Your task to perform on an android device: check storage Image 0: 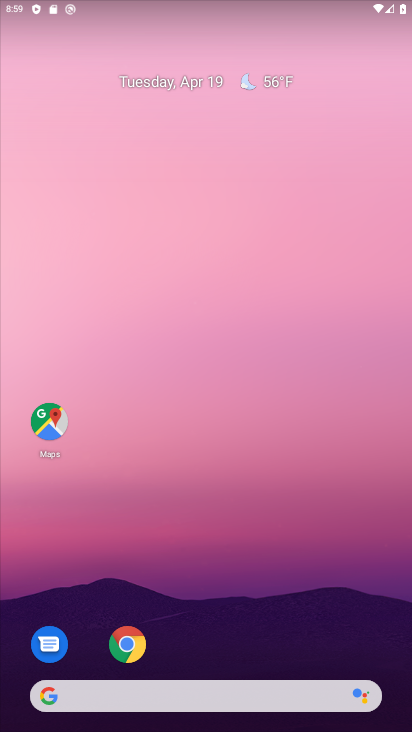
Step 0: drag from (182, 653) to (228, 161)
Your task to perform on an android device: check storage Image 1: 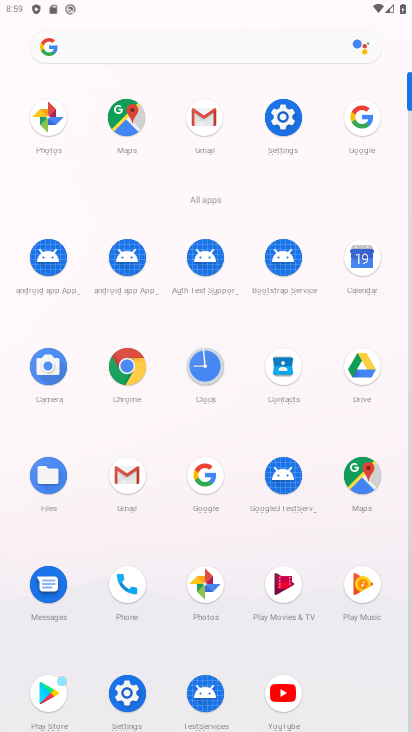
Step 1: click (286, 127)
Your task to perform on an android device: check storage Image 2: 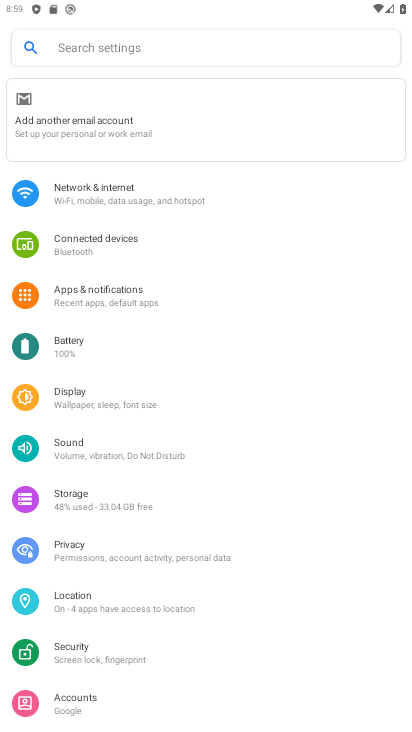
Step 2: click (136, 499)
Your task to perform on an android device: check storage Image 3: 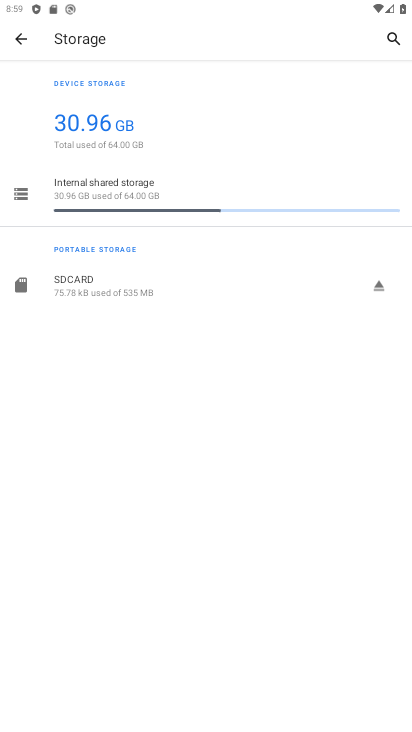
Step 3: click (135, 180)
Your task to perform on an android device: check storage Image 4: 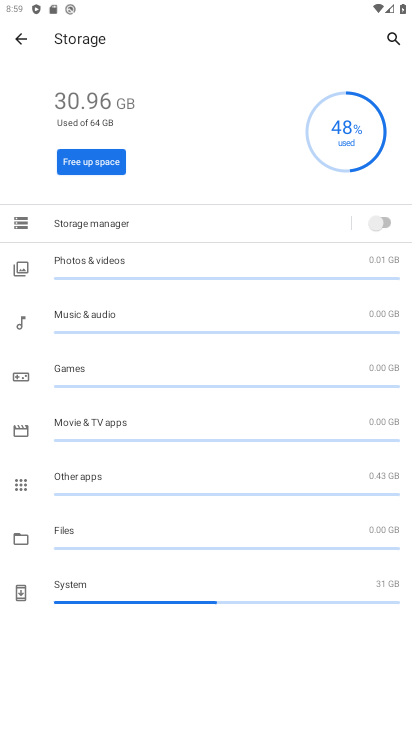
Step 4: task complete